Your task to perform on an android device: Do I have any events tomorrow? Image 0: 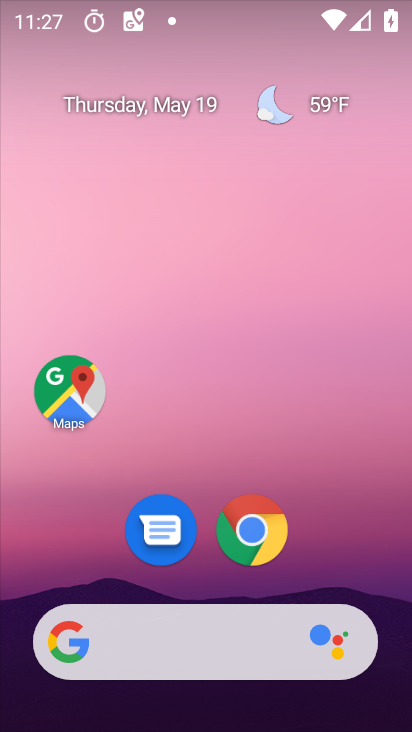
Step 0: drag from (351, 554) to (313, 192)
Your task to perform on an android device: Do I have any events tomorrow? Image 1: 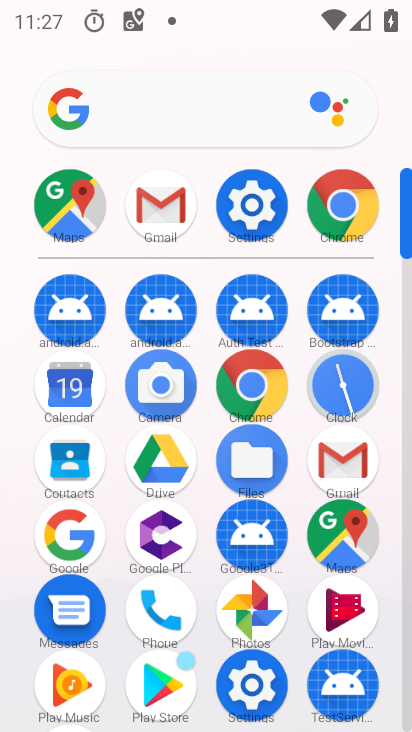
Step 1: click (86, 411)
Your task to perform on an android device: Do I have any events tomorrow? Image 2: 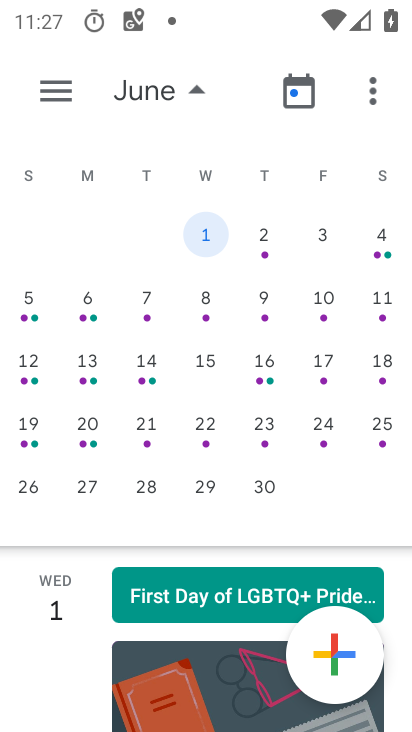
Step 2: drag from (55, 252) to (360, 284)
Your task to perform on an android device: Do I have any events tomorrow? Image 3: 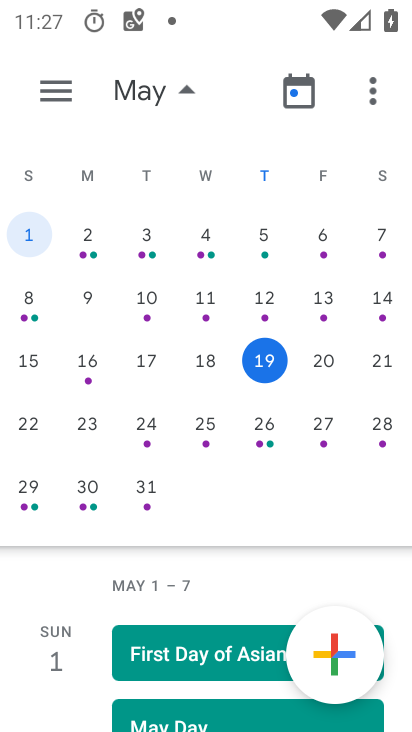
Step 3: click (268, 365)
Your task to perform on an android device: Do I have any events tomorrow? Image 4: 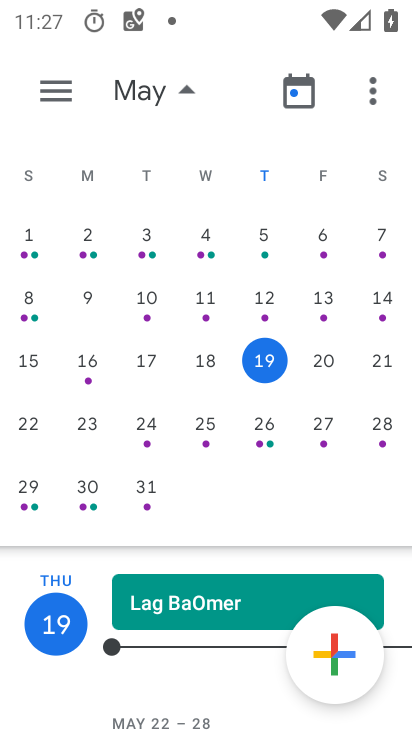
Step 4: task complete